Your task to perform on an android device: Search for Italian restaurants on Maps Image 0: 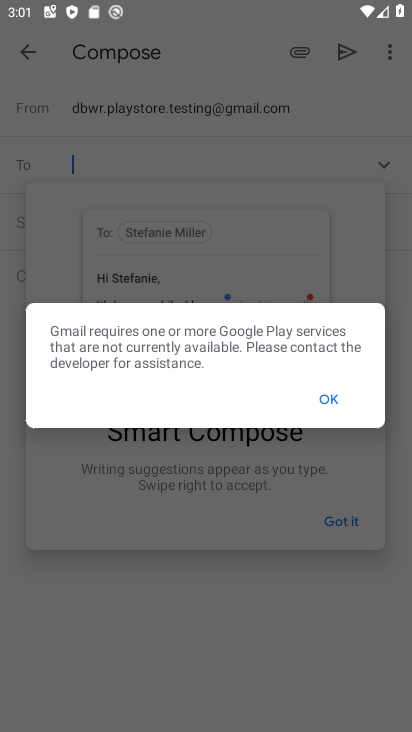
Step 0: press home button
Your task to perform on an android device: Search for Italian restaurants on Maps Image 1: 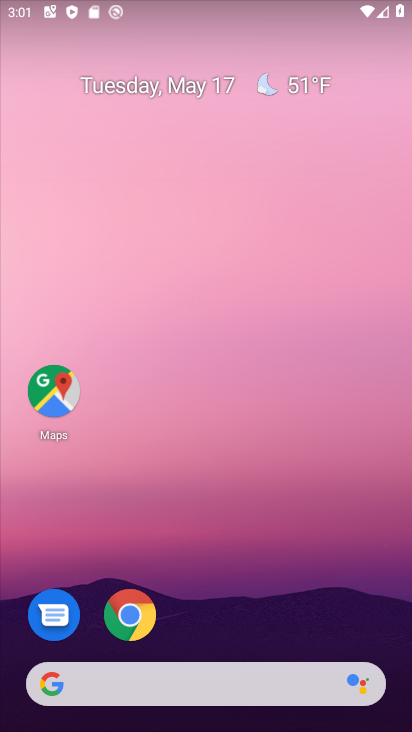
Step 1: click (55, 380)
Your task to perform on an android device: Search for Italian restaurants on Maps Image 2: 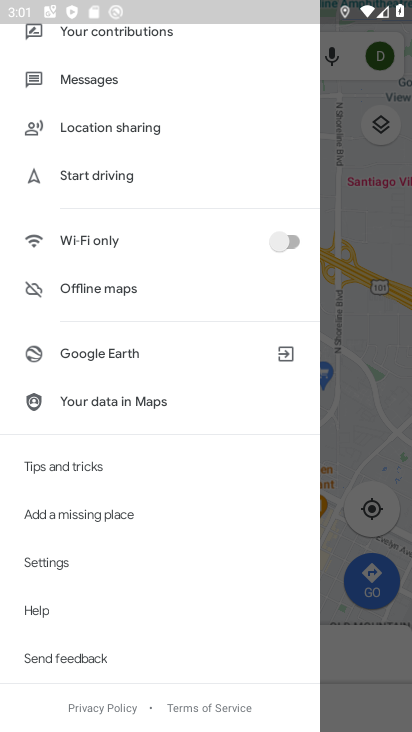
Step 2: click (361, 195)
Your task to perform on an android device: Search for Italian restaurants on Maps Image 3: 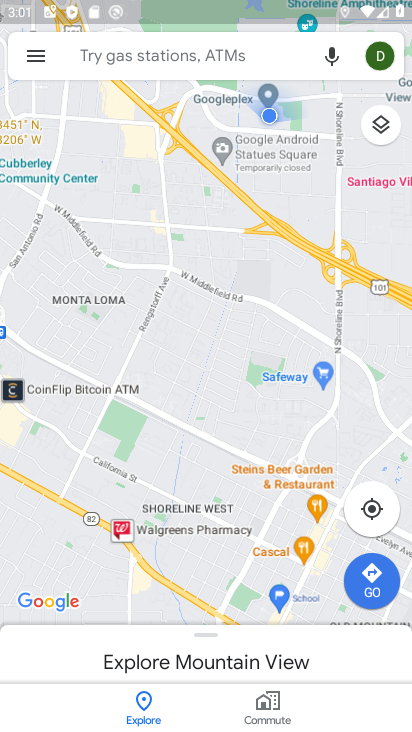
Step 3: click (189, 53)
Your task to perform on an android device: Search for Italian restaurants on Maps Image 4: 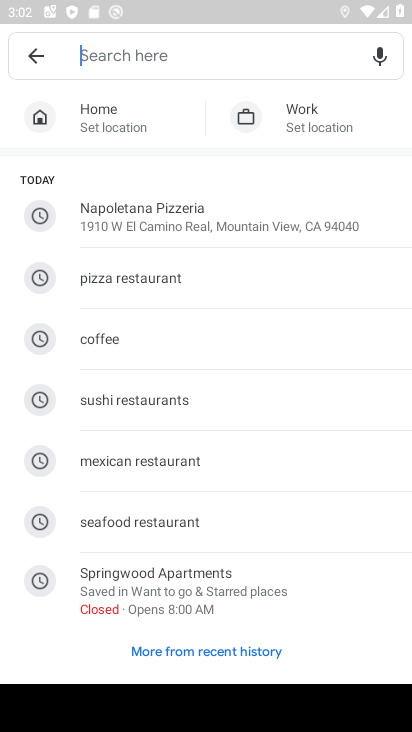
Step 4: type "italian"
Your task to perform on an android device: Search for Italian restaurants on Maps Image 5: 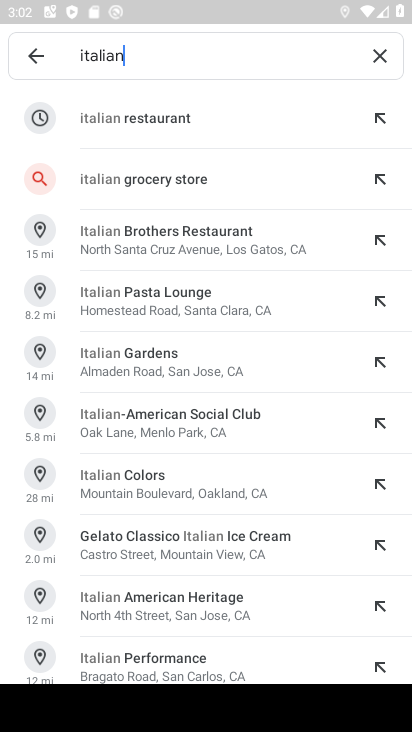
Step 5: click (175, 123)
Your task to perform on an android device: Search for Italian restaurants on Maps Image 6: 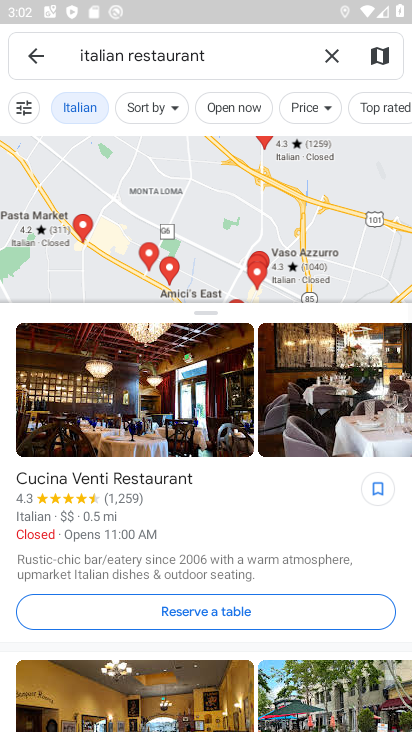
Step 6: task complete